Your task to perform on an android device: open chrome privacy settings Image 0: 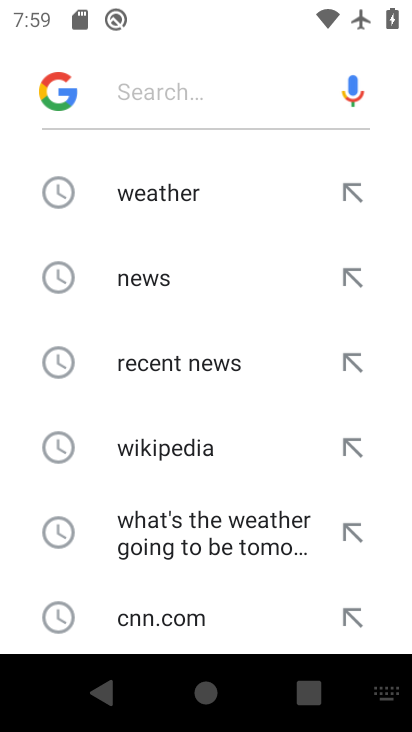
Step 0: press home button
Your task to perform on an android device: open chrome privacy settings Image 1: 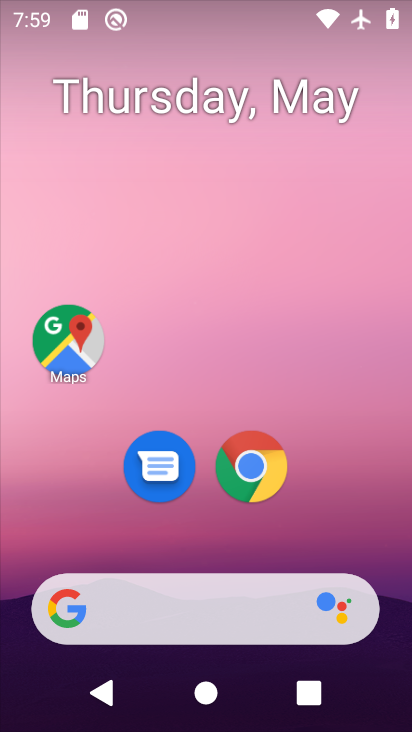
Step 1: drag from (357, 510) to (316, 90)
Your task to perform on an android device: open chrome privacy settings Image 2: 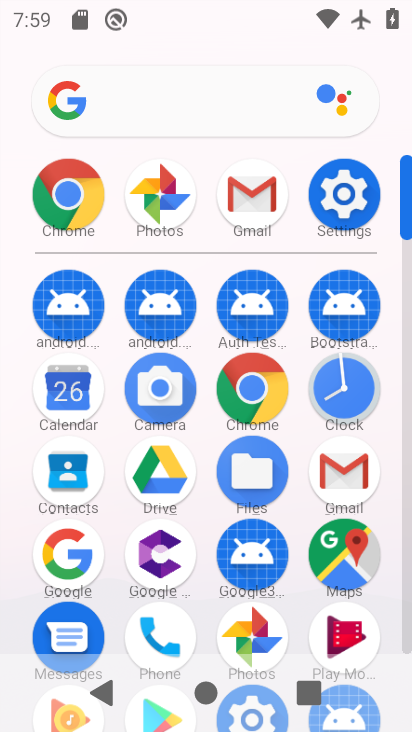
Step 2: click (275, 187)
Your task to perform on an android device: open chrome privacy settings Image 3: 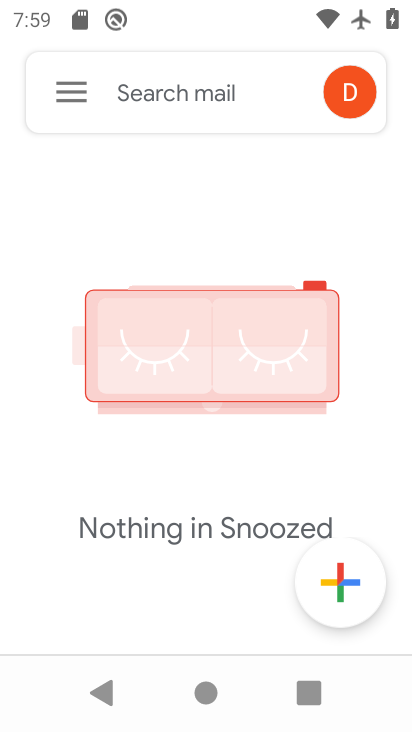
Step 3: press home button
Your task to perform on an android device: open chrome privacy settings Image 4: 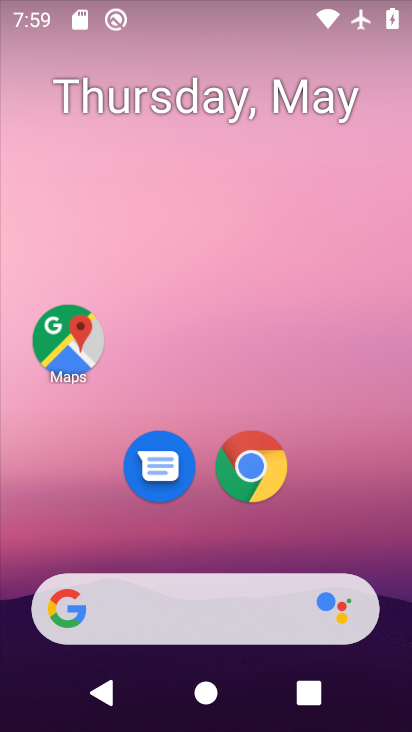
Step 4: click (241, 467)
Your task to perform on an android device: open chrome privacy settings Image 5: 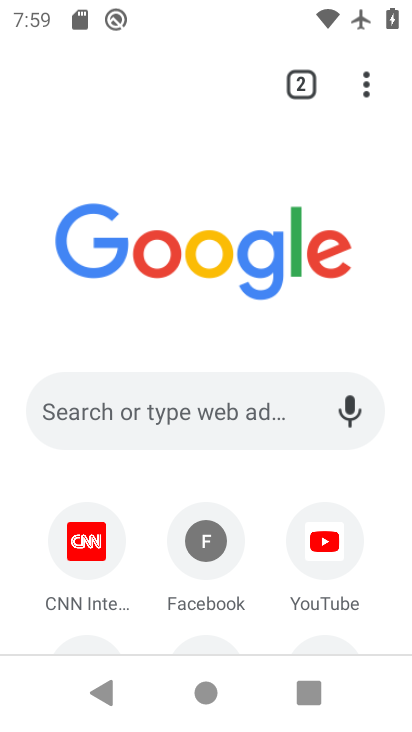
Step 5: click (357, 94)
Your task to perform on an android device: open chrome privacy settings Image 6: 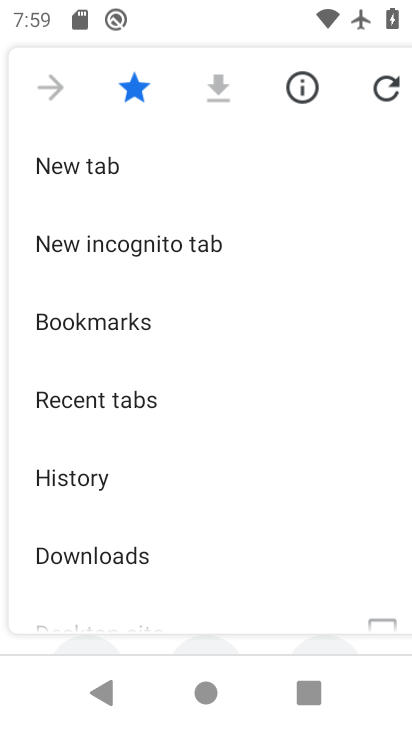
Step 6: drag from (233, 543) to (249, 198)
Your task to perform on an android device: open chrome privacy settings Image 7: 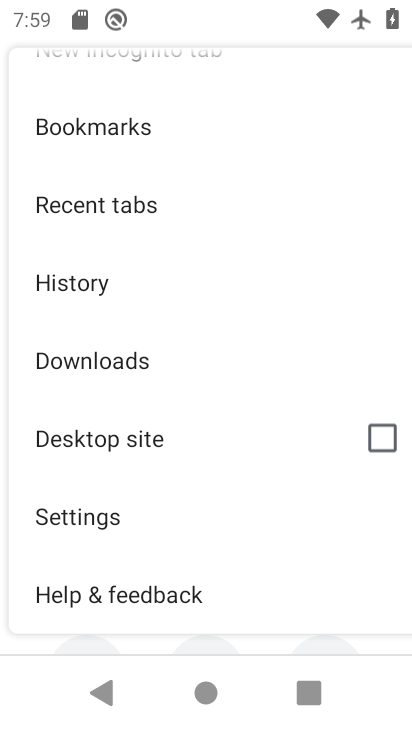
Step 7: click (174, 503)
Your task to perform on an android device: open chrome privacy settings Image 8: 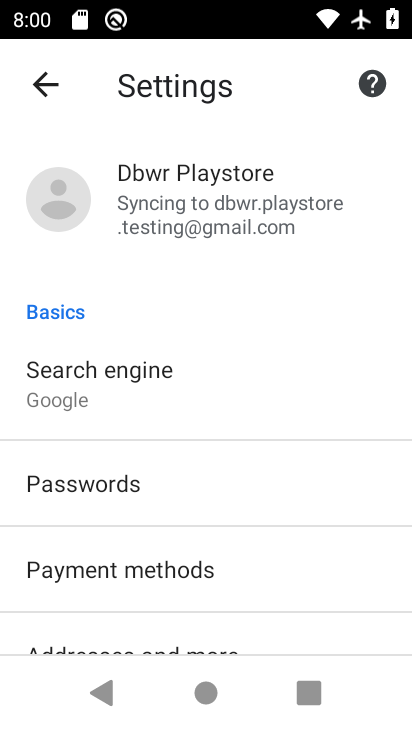
Step 8: drag from (160, 555) to (173, 207)
Your task to perform on an android device: open chrome privacy settings Image 9: 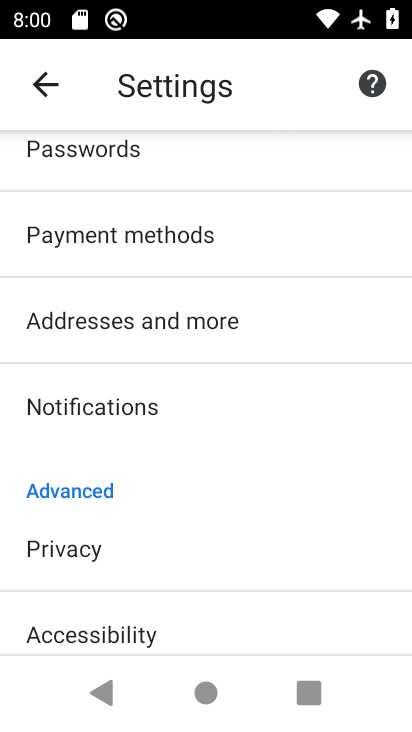
Step 9: drag from (166, 537) to (167, 223)
Your task to perform on an android device: open chrome privacy settings Image 10: 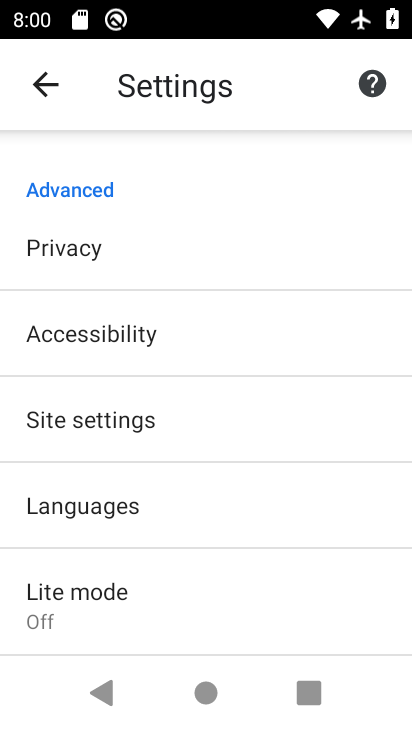
Step 10: click (198, 263)
Your task to perform on an android device: open chrome privacy settings Image 11: 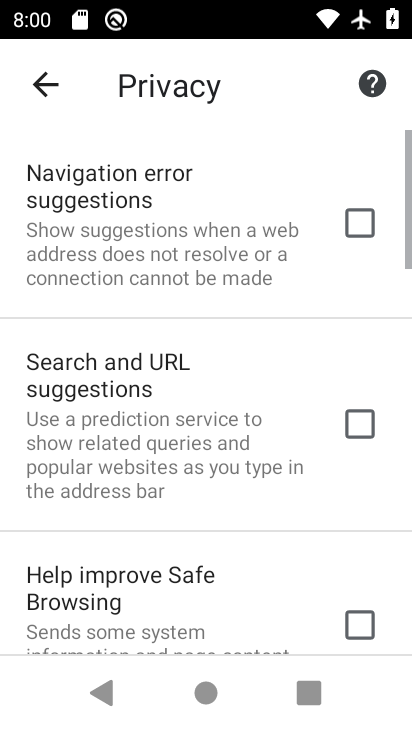
Step 11: task complete